Your task to perform on an android device: open wifi settings Image 0: 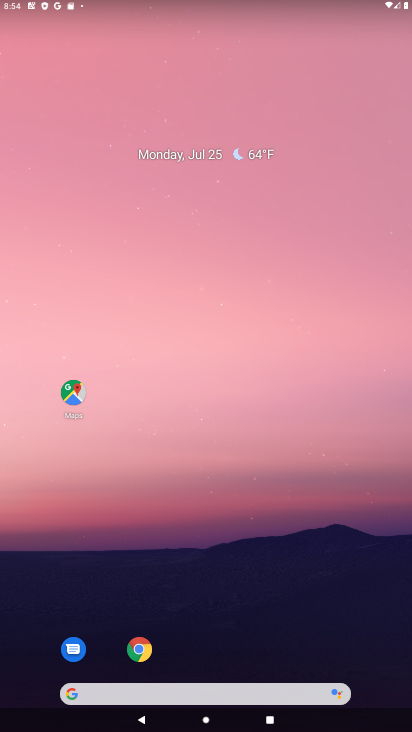
Step 0: drag from (173, 8) to (199, 361)
Your task to perform on an android device: open wifi settings Image 1: 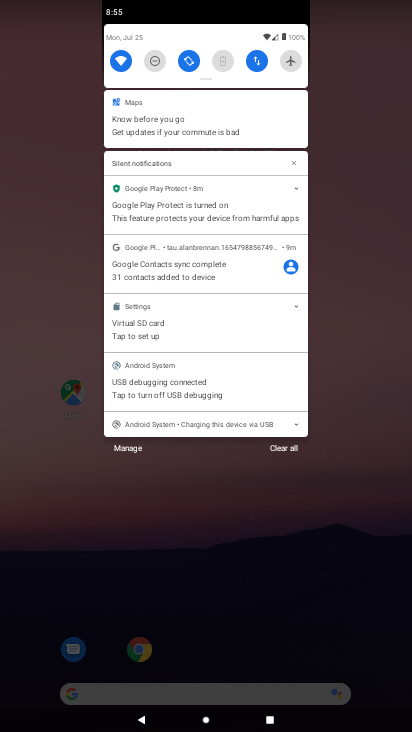
Step 1: click (124, 57)
Your task to perform on an android device: open wifi settings Image 2: 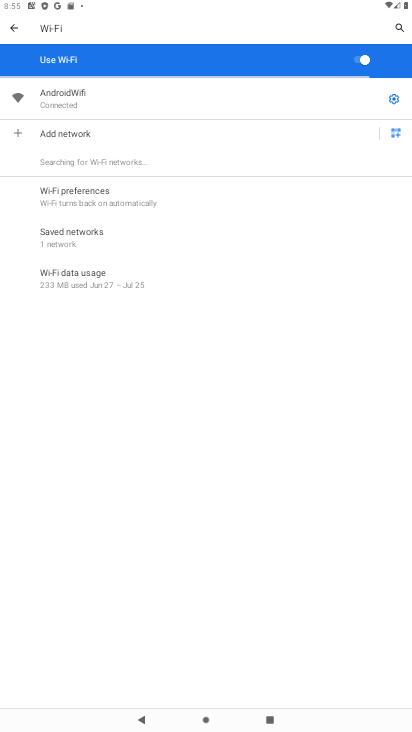
Step 2: task complete